Your task to perform on an android device: Search for sushi restaurants on Maps Image 0: 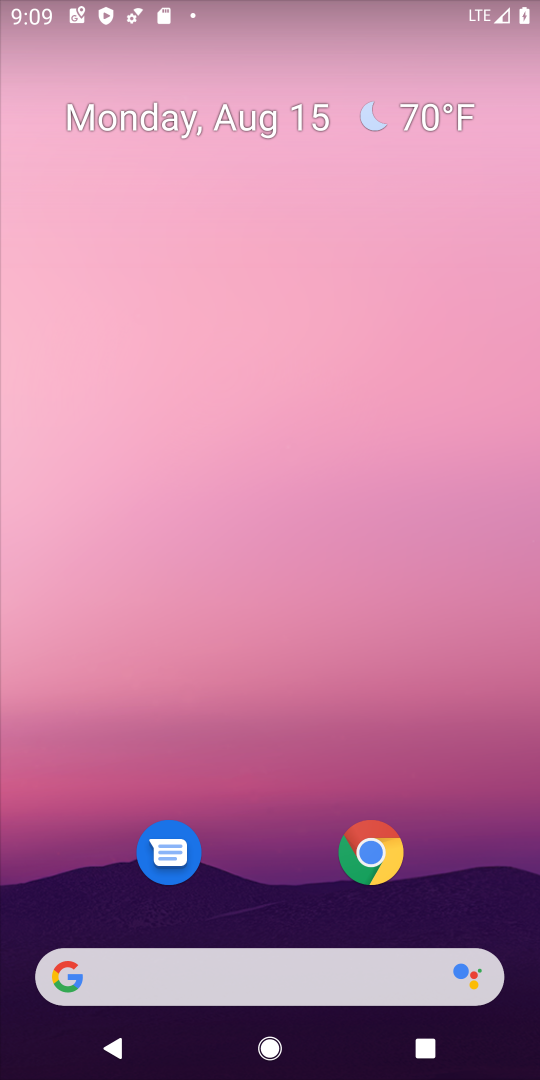
Step 0: drag from (257, 966) to (414, 172)
Your task to perform on an android device: Search for sushi restaurants on Maps Image 1: 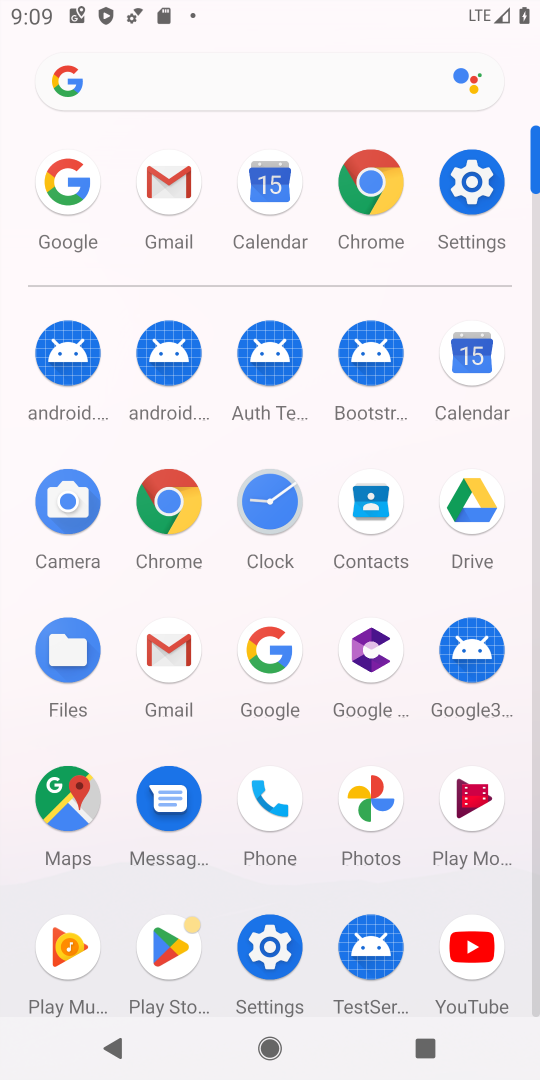
Step 1: click (63, 804)
Your task to perform on an android device: Search for sushi restaurants on Maps Image 2: 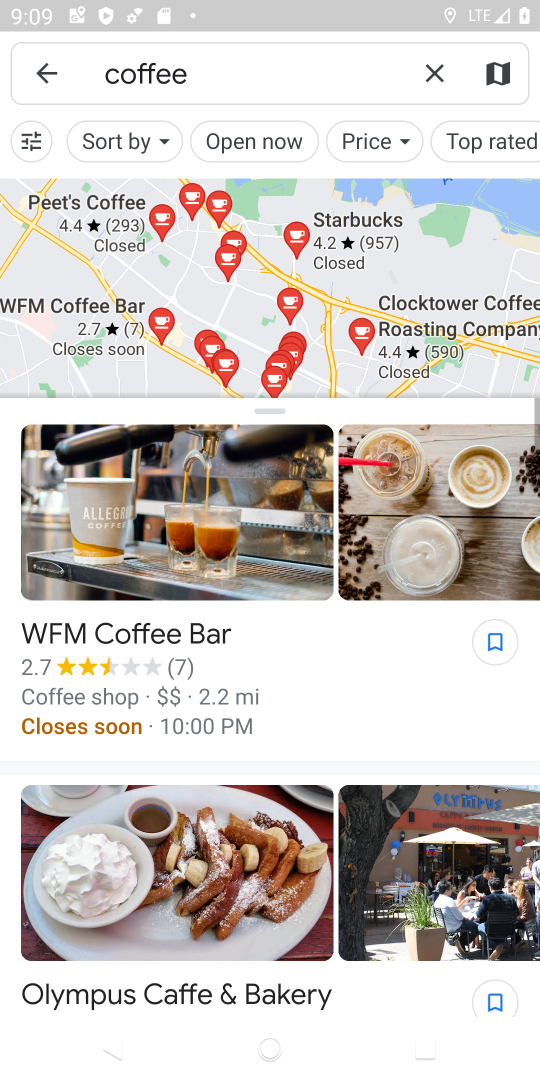
Step 2: click (428, 126)
Your task to perform on an android device: Search for sushi restaurants on Maps Image 3: 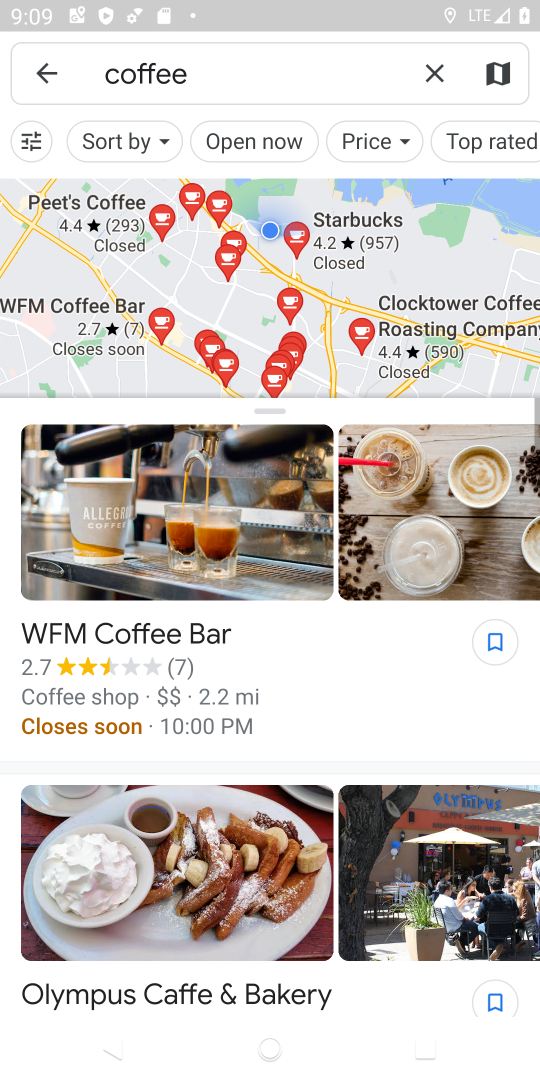
Step 3: click (439, 81)
Your task to perform on an android device: Search for sushi restaurants on Maps Image 4: 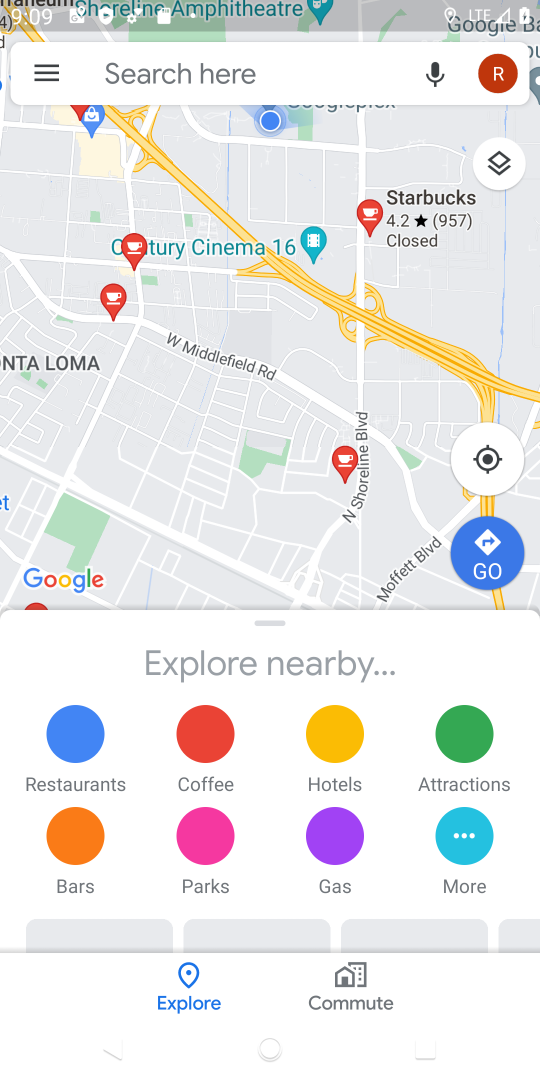
Step 4: click (236, 59)
Your task to perform on an android device: Search for sushi restaurants on Maps Image 5: 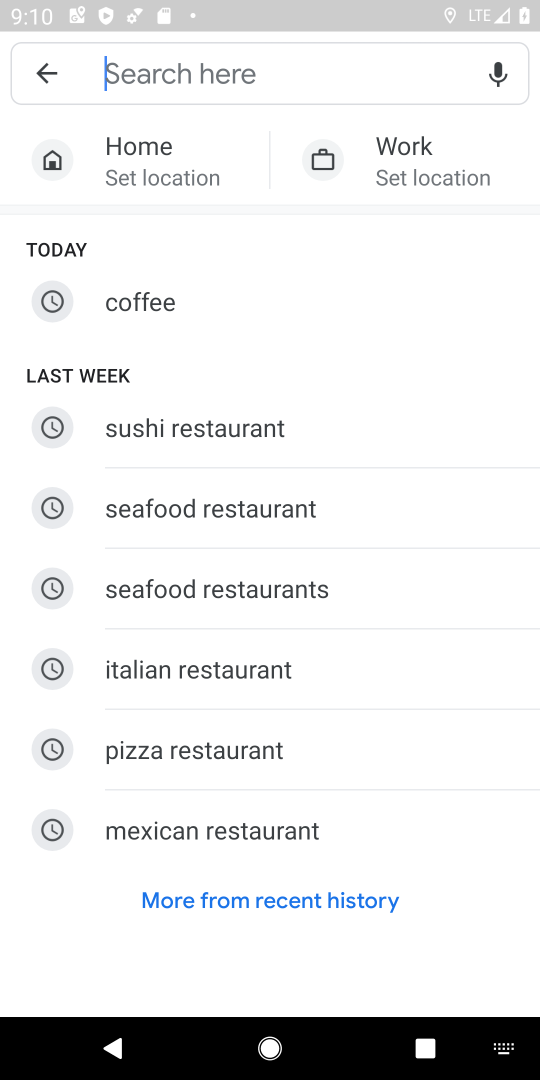
Step 5: type "sushi restaurants"
Your task to perform on an android device: Search for sushi restaurants on Maps Image 6: 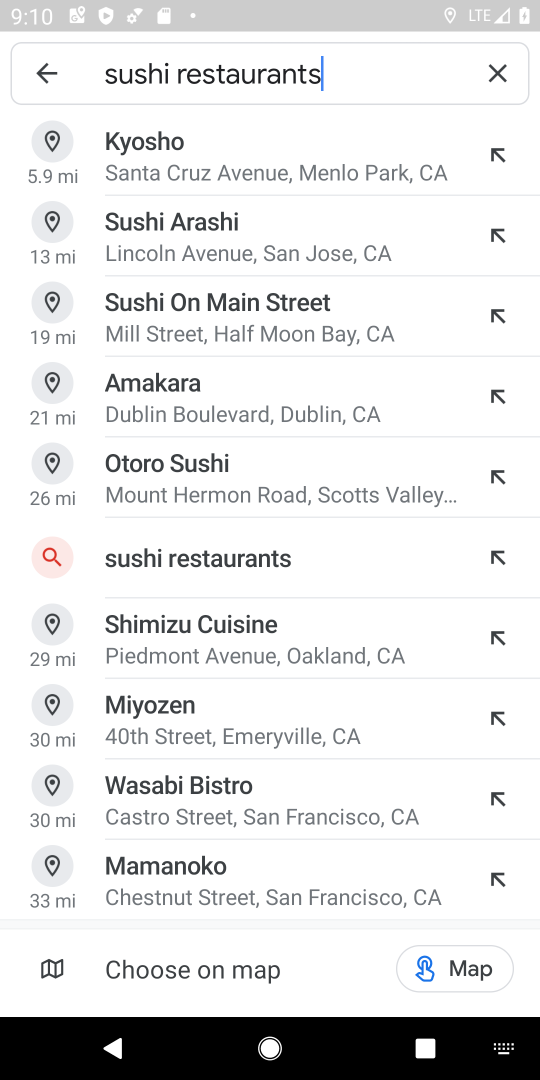
Step 6: click (239, 557)
Your task to perform on an android device: Search for sushi restaurants on Maps Image 7: 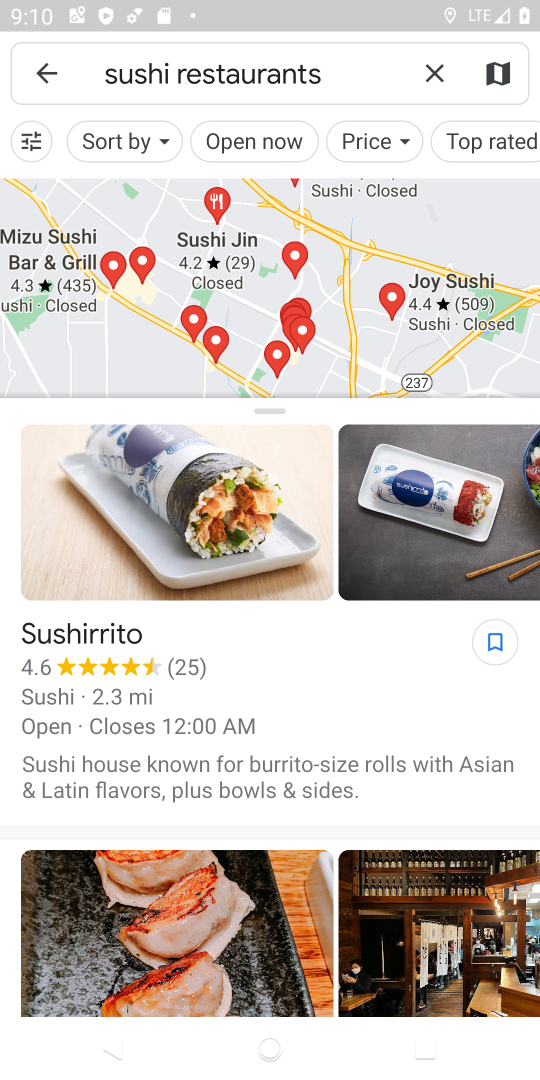
Step 7: task complete